Your task to perform on an android device: Open battery settings Image 0: 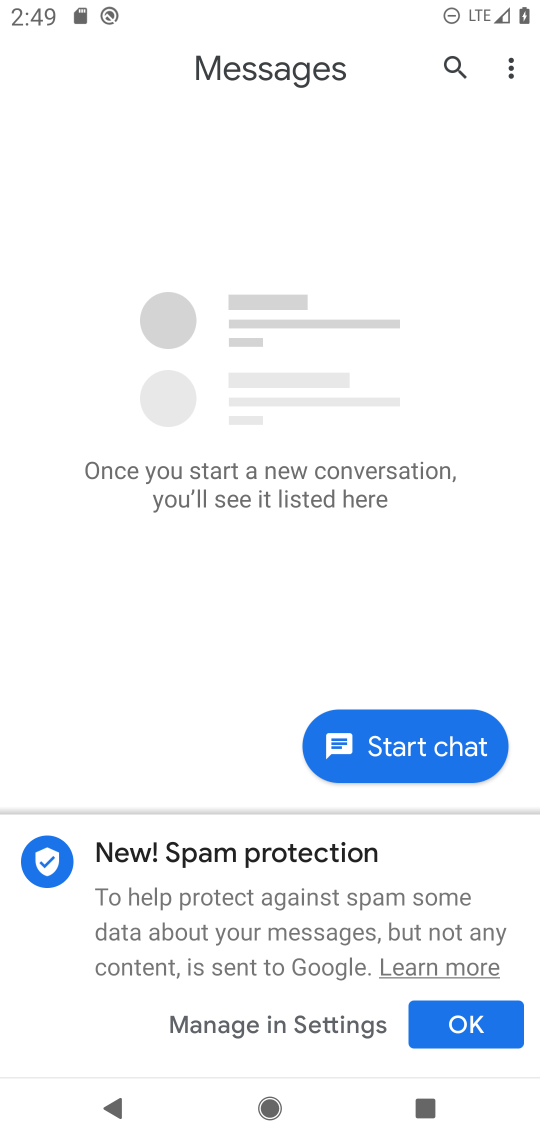
Step 0: press home button
Your task to perform on an android device: Open battery settings Image 1: 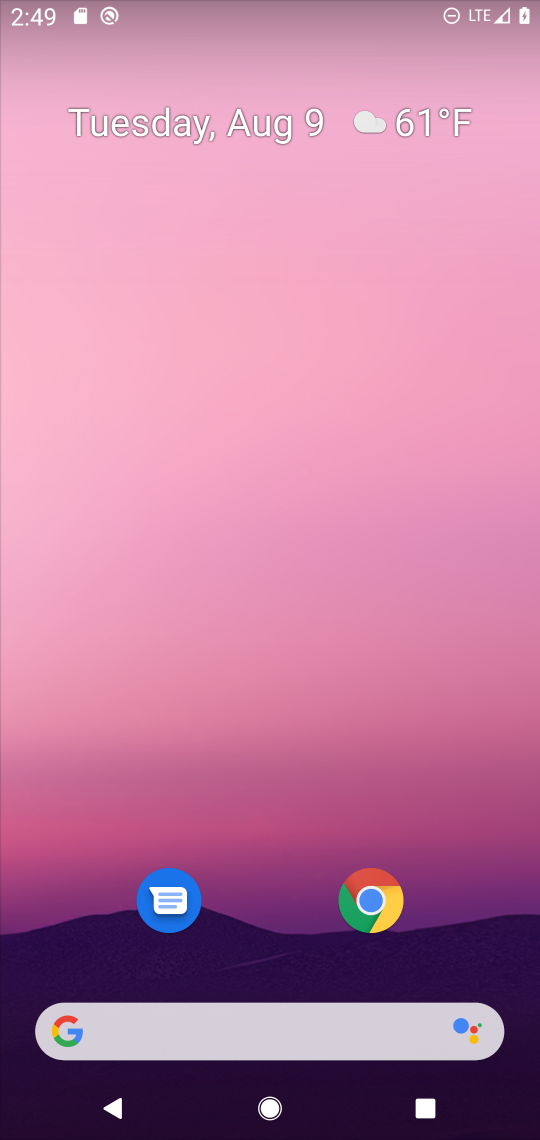
Step 1: drag from (463, 942) to (467, 323)
Your task to perform on an android device: Open battery settings Image 2: 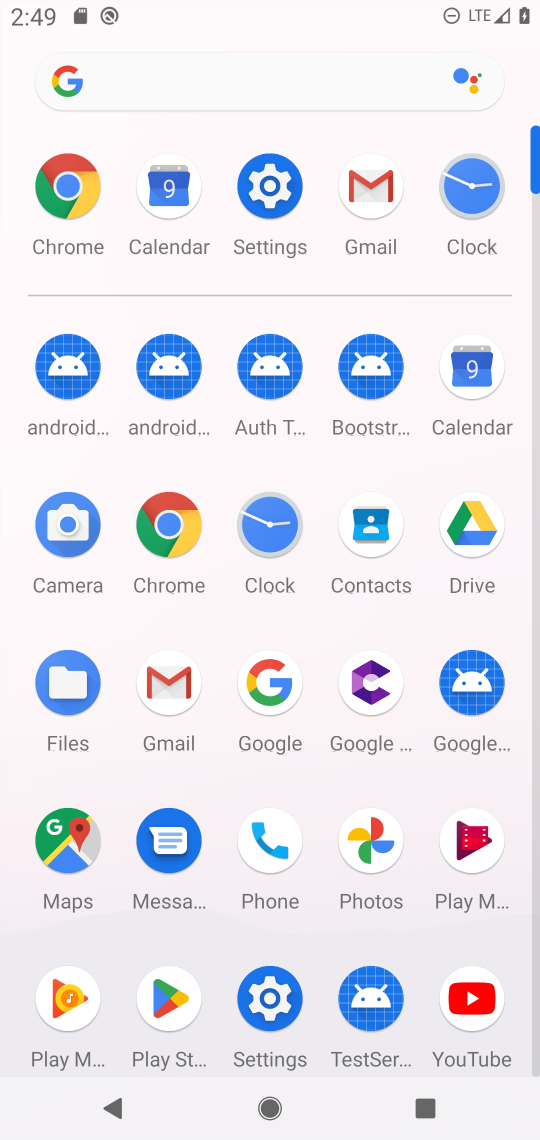
Step 2: click (267, 195)
Your task to perform on an android device: Open battery settings Image 3: 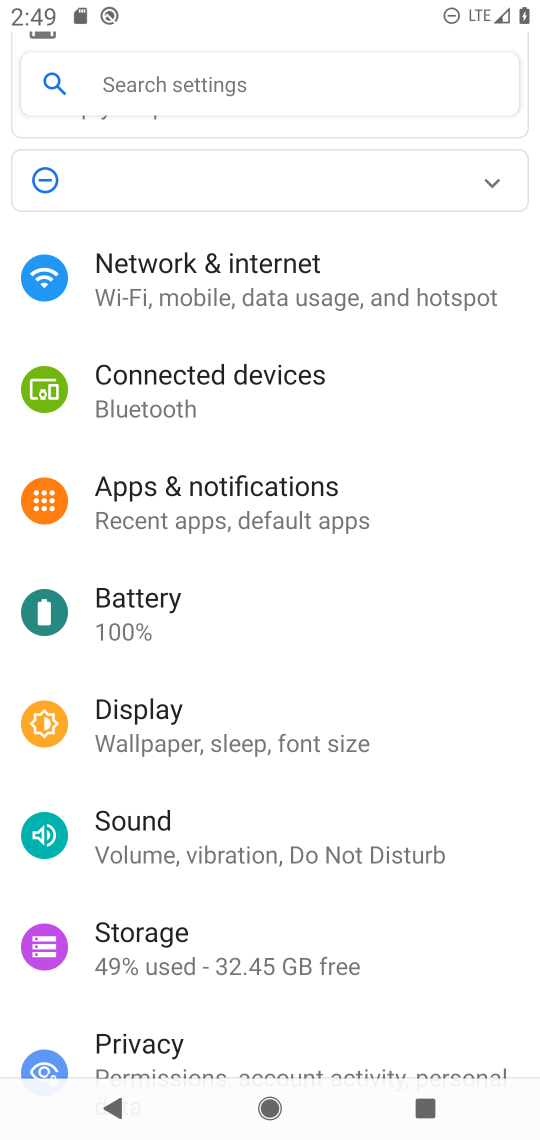
Step 3: drag from (422, 627) to (441, 424)
Your task to perform on an android device: Open battery settings Image 4: 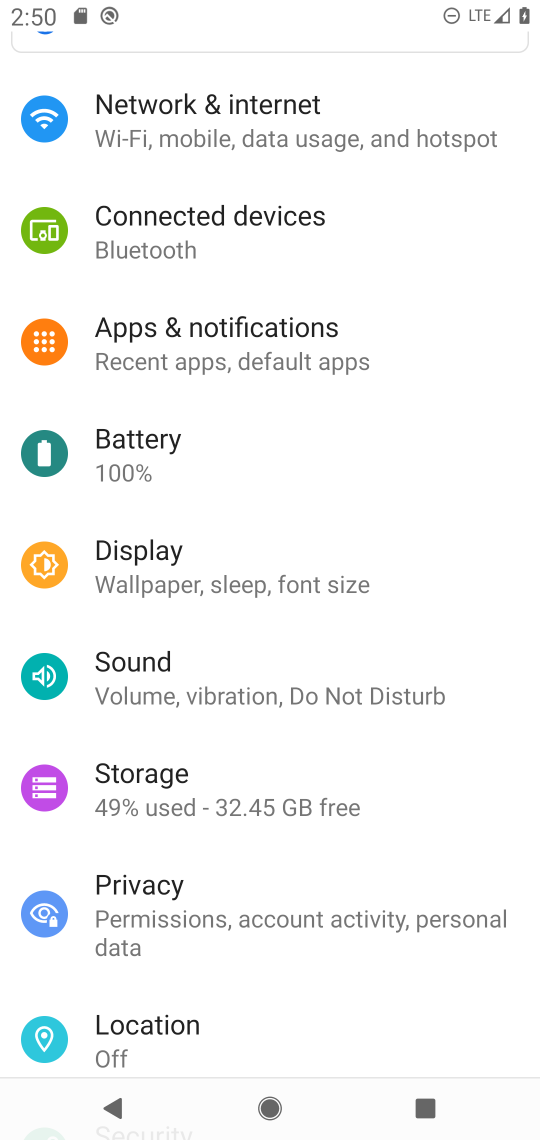
Step 4: drag from (471, 650) to (468, 453)
Your task to perform on an android device: Open battery settings Image 5: 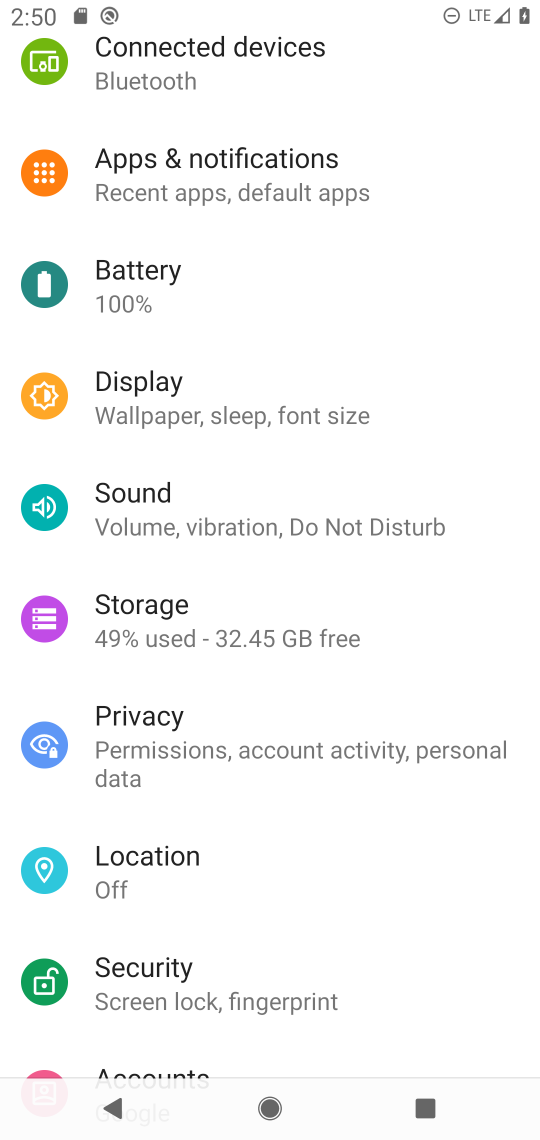
Step 5: drag from (452, 643) to (477, 445)
Your task to perform on an android device: Open battery settings Image 6: 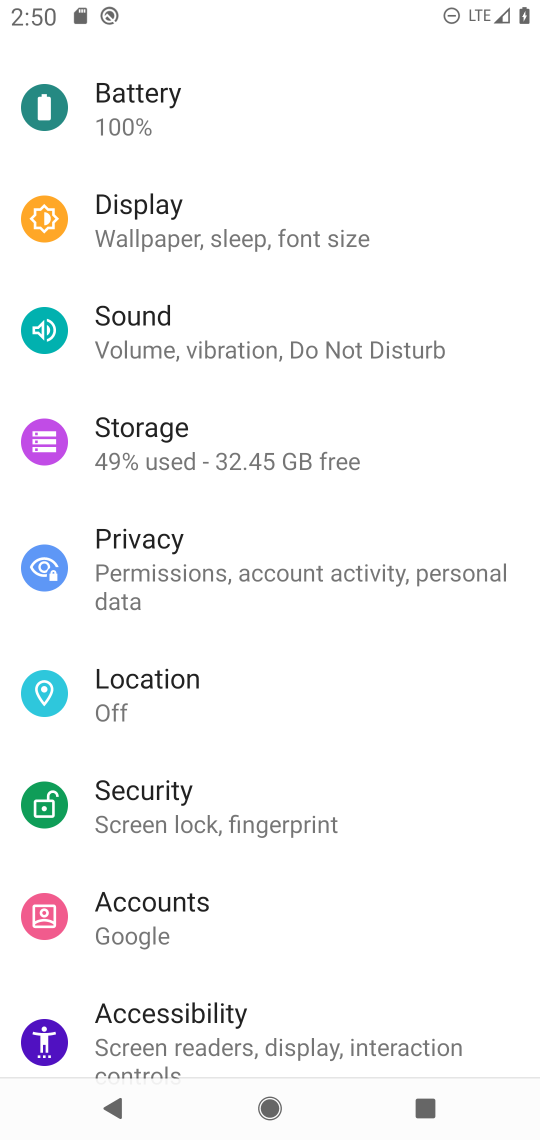
Step 6: drag from (469, 796) to (480, 591)
Your task to perform on an android device: Open battery settings Image 7: 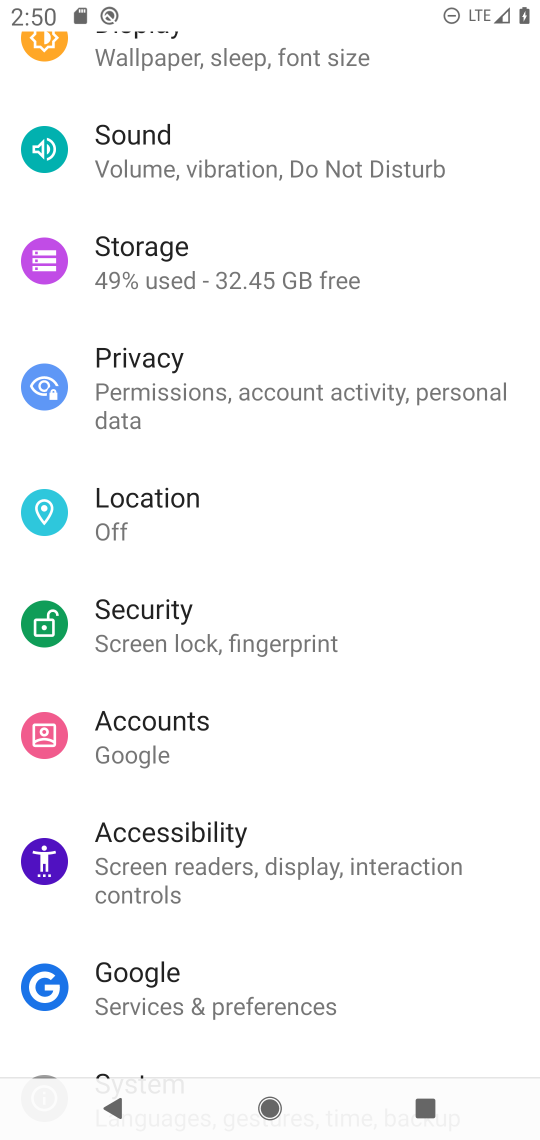
Step 7: drag from (475, 840) to (493, 622)
Your task to perform on an android device: Open battery settings Image 8: 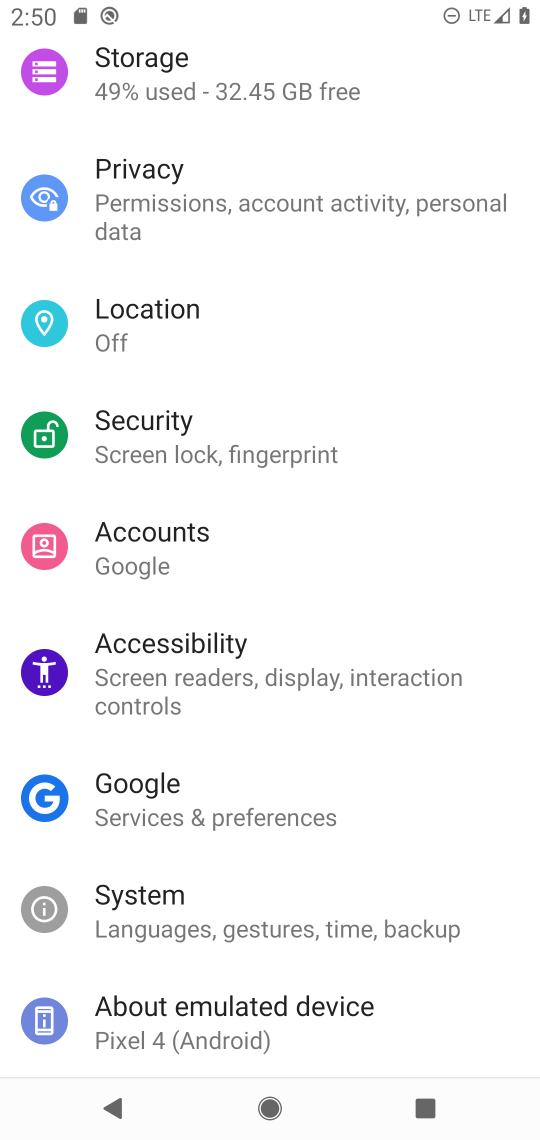
Step 8: drag from (422, 818) to (463, 590)
Your task to perform on an android device: Open battery settings Image 9: 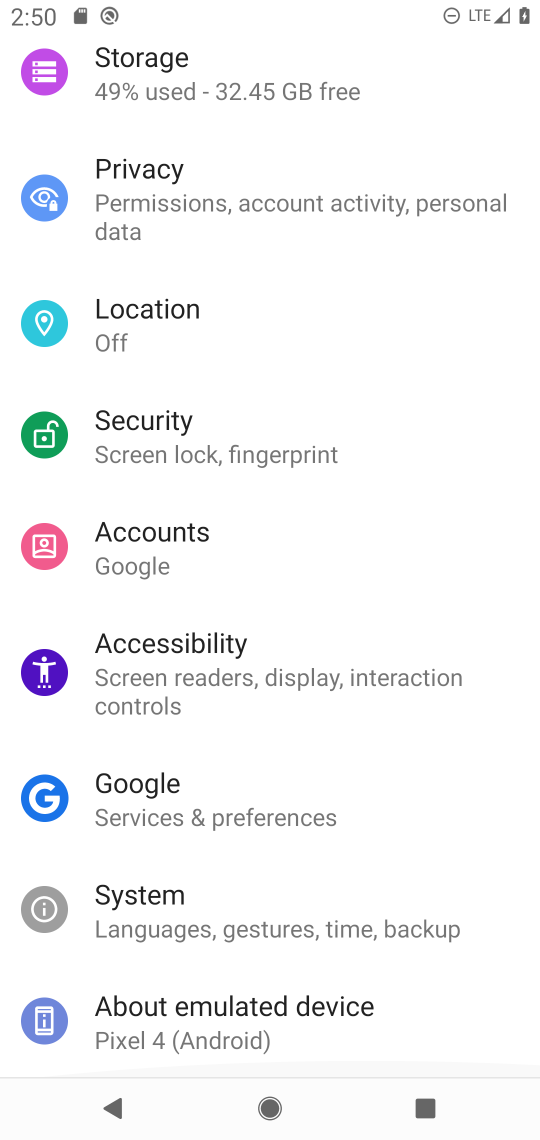
Step 9: drag from (463, 340) to (467, 515)
Your task to perform on an android device: Open battery settings Image 10: 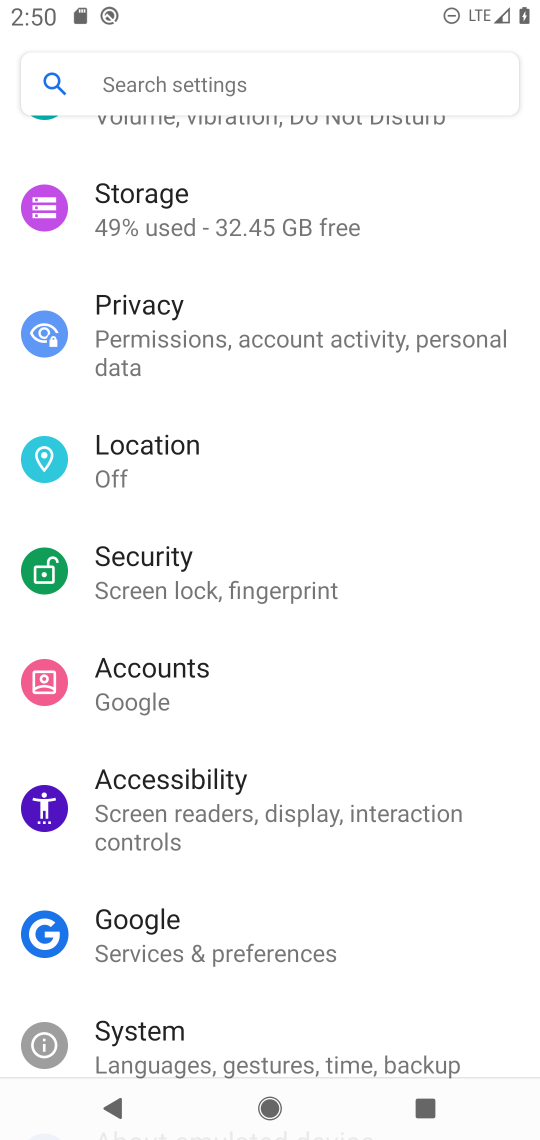
Step 10: drag from (475, 366) to (475, 523)
Your task to perform on an android device: Open battery settings Image 11: 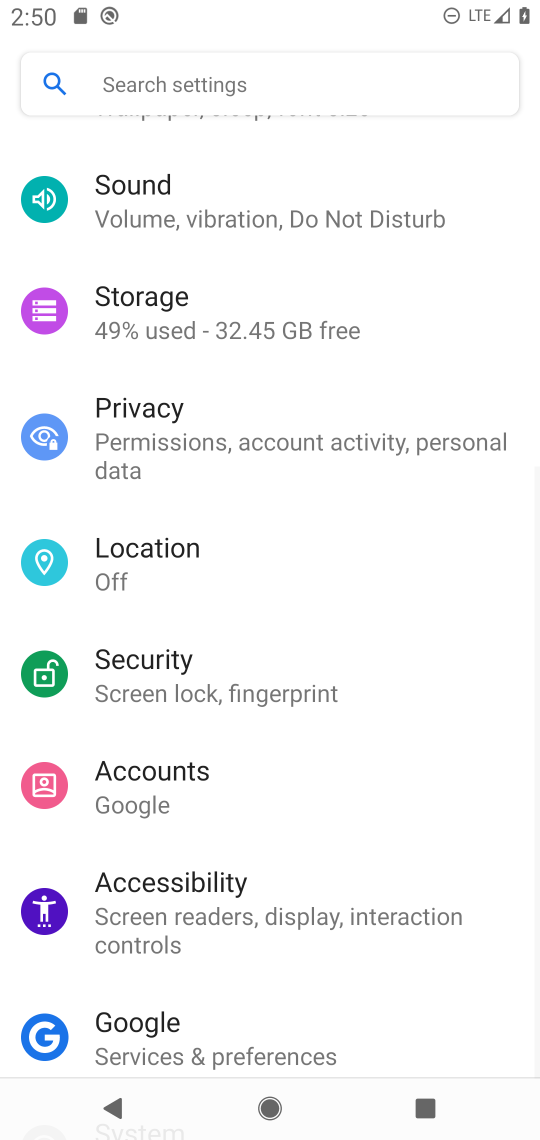
Step 11: drag from (491, 307) to (491, 530)
Your task to perform on an android device: Open battery settings Image 12: 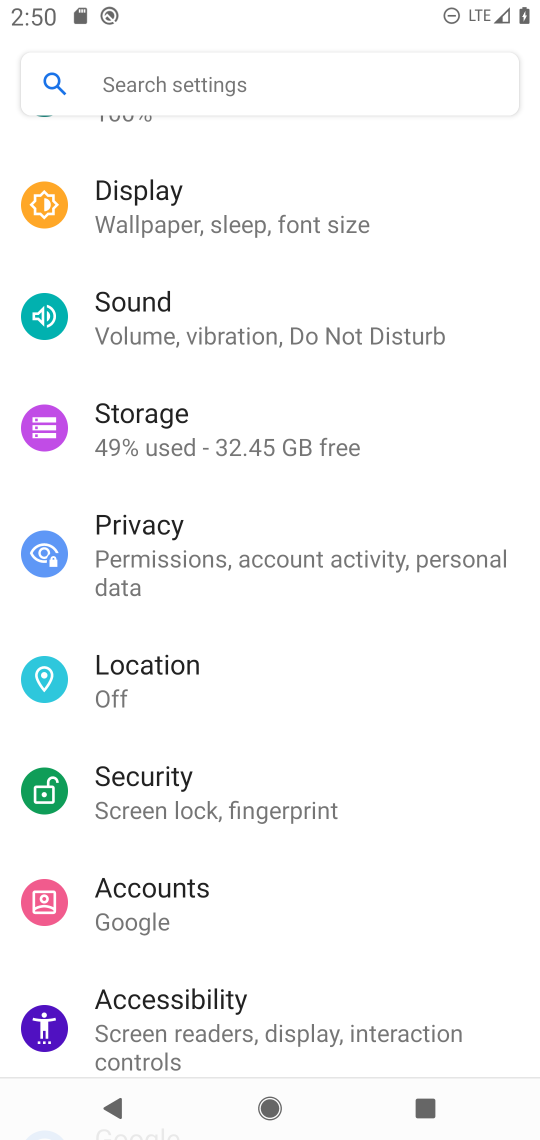
Step 12: drag from (491, 268) to (477, 479)
Your task to perform on an android device: Open battery settings Image 13: 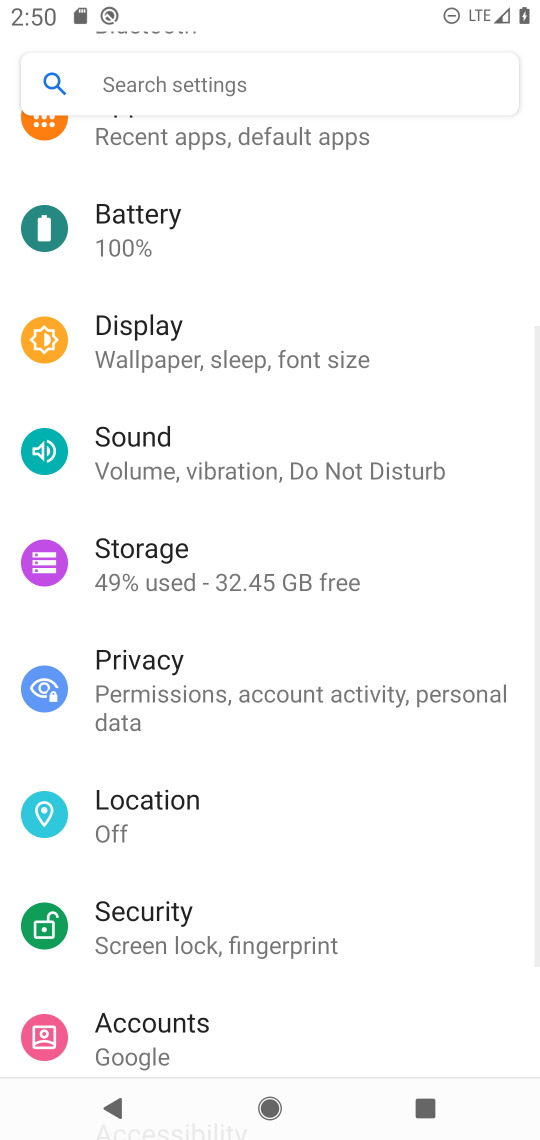
Step 13: drag from (476, 268) to (471, 479)
Your task to perform on an android device: Open battery settings Image 14: 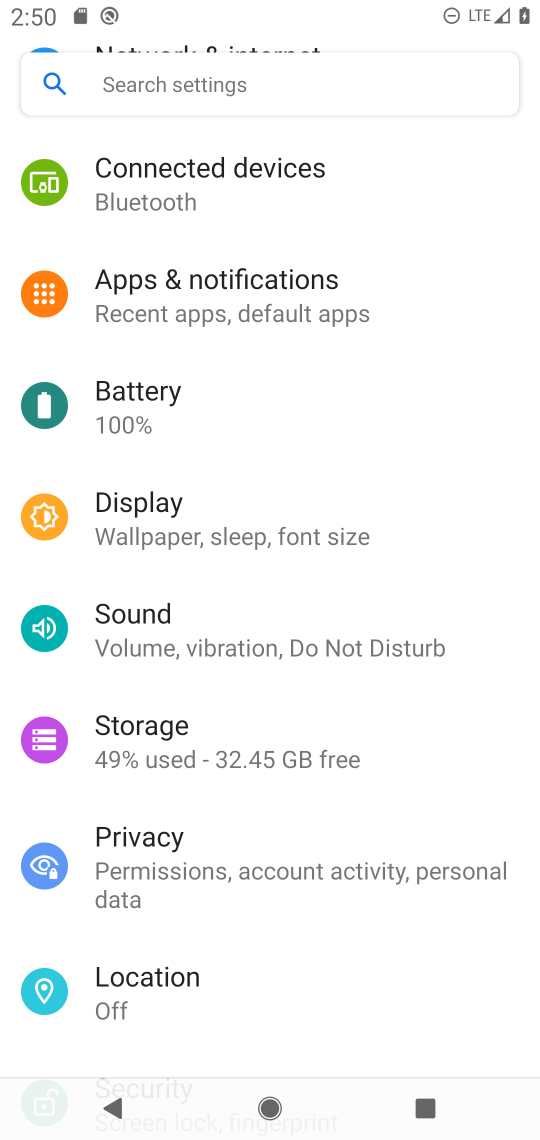
Step 14: drag from (493, 302) to (479, 518)
Your task to perform on an android device: Open battery settings Image 15: 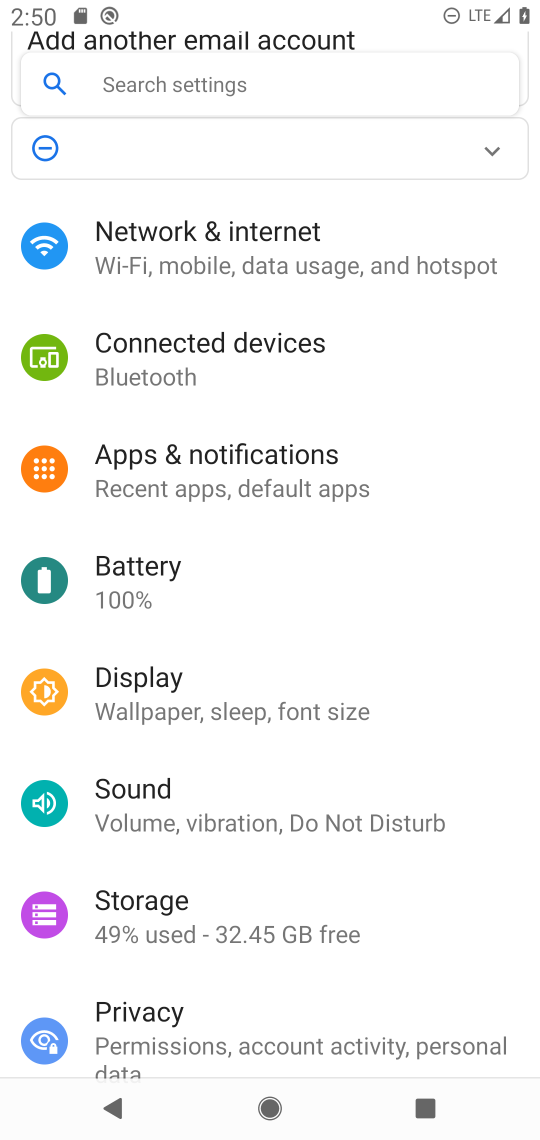
Step 15: drag from (500, 333) to (500, 597)
Your task to perform on an android device: Open battery settings Image 16: 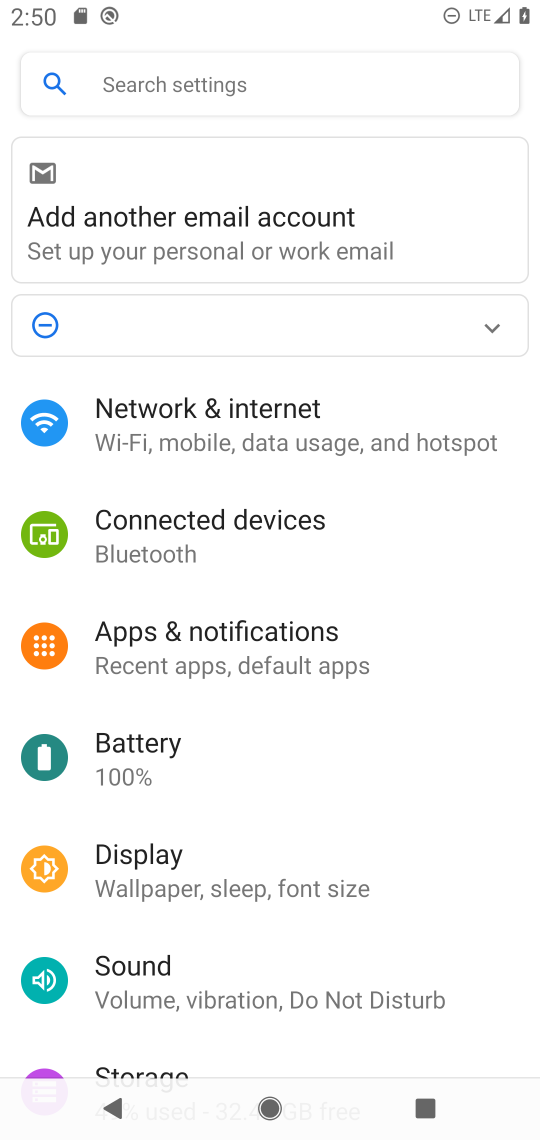
Step 16: click (269, 764)
Your task to perform on an android device: Open battery settings Image 17: 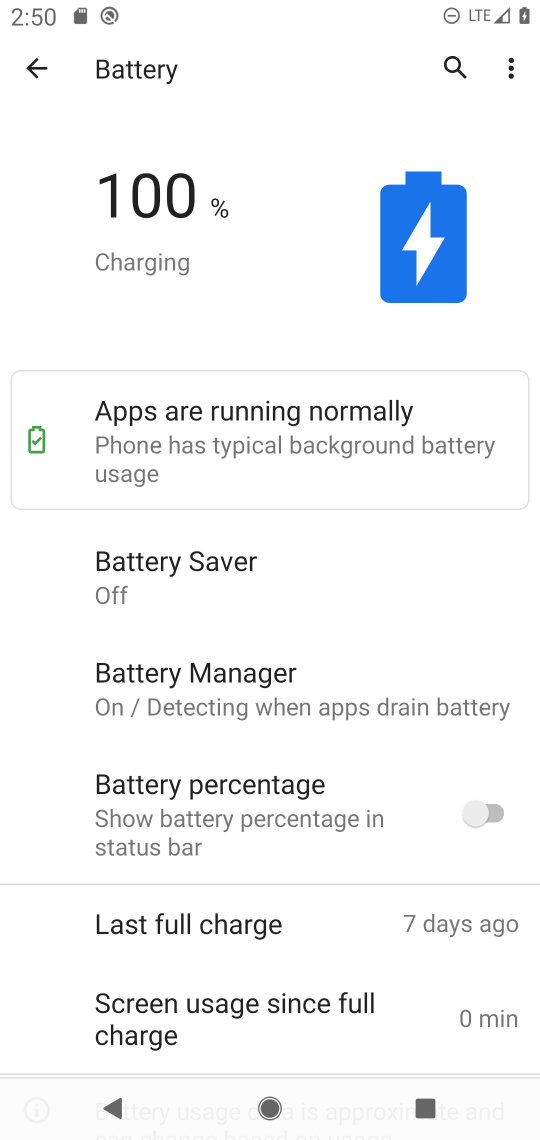
Step 17: task complete